Your task to perform on an android device: Open sound settings Image 0: 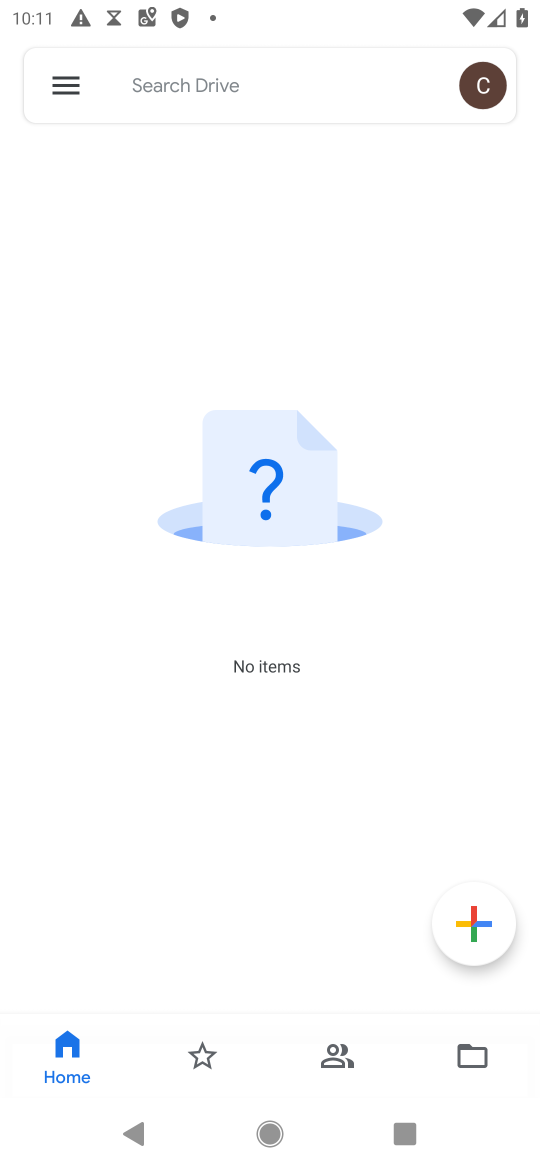
Step 0: press home button
Your task to perform on an android device: Open sound settings Image 1: 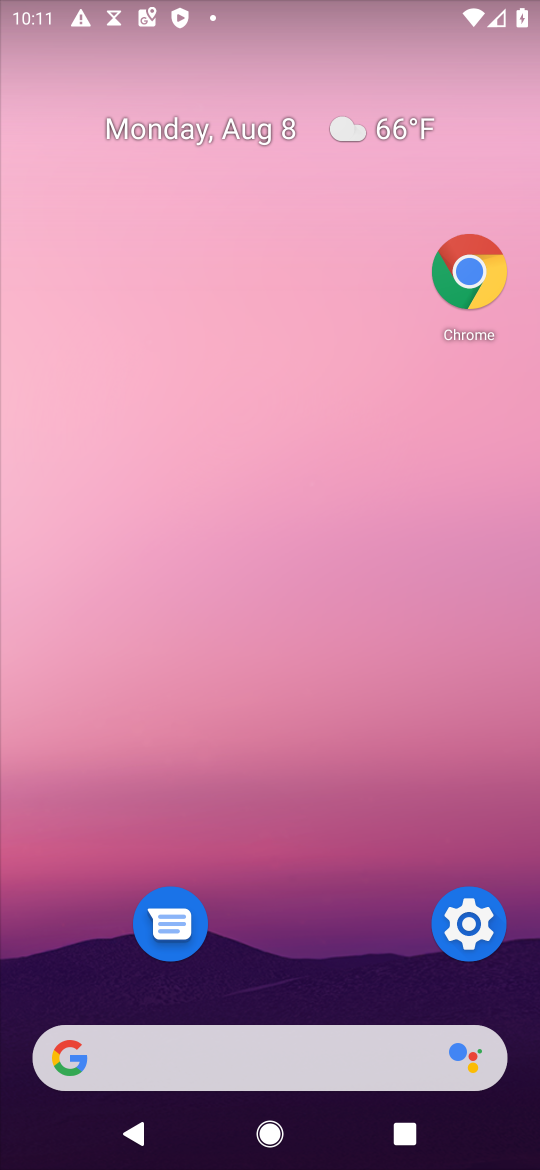
Step 1: click (477, 933)
Your task to perform on an android device: Open sound settings Image 2: 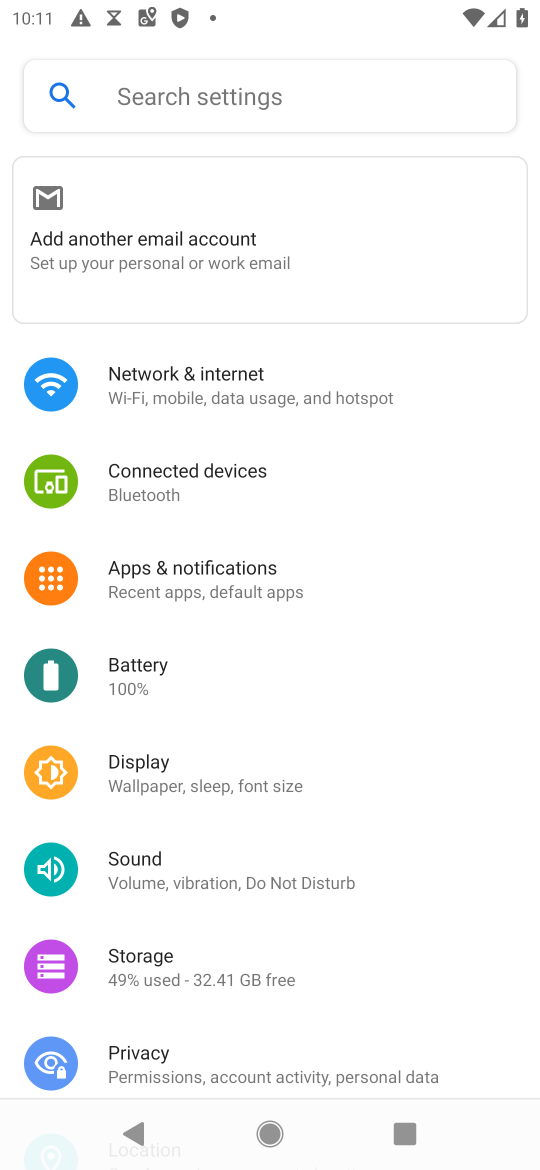
Step 2: click (155, 866)
Your task to perform on an android device: Open sound settings Image 3: 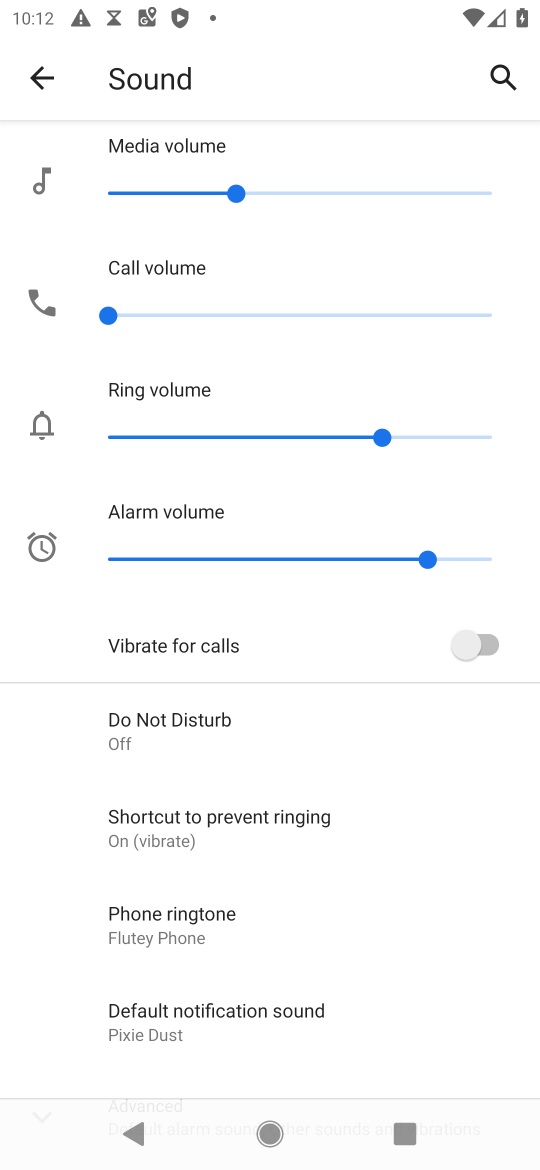
Step 3: task complete